Your task to perform on an android device: Show me recent news Image 0: 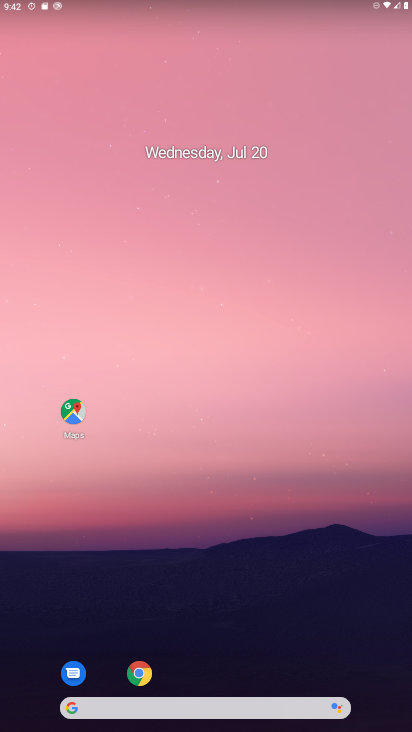
Step 0: drag from (236, 185) to (198, 51)
Your task to perform on an android device: Show me recent news Image 1: 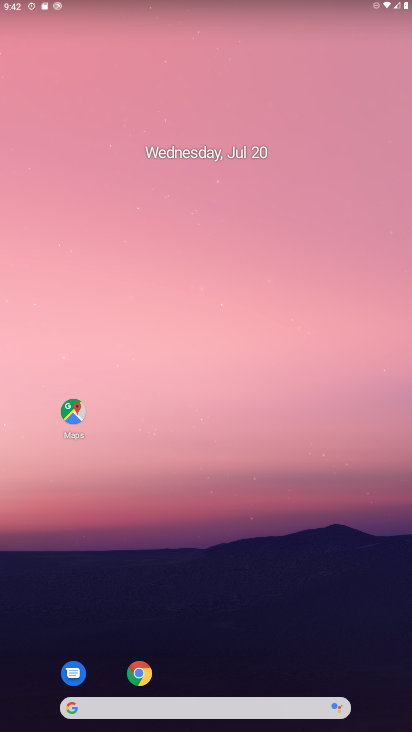
Step 1: drag from (347, 667) to (200, 21)
Your task to perform on an android device: Show me recent news Image 2: 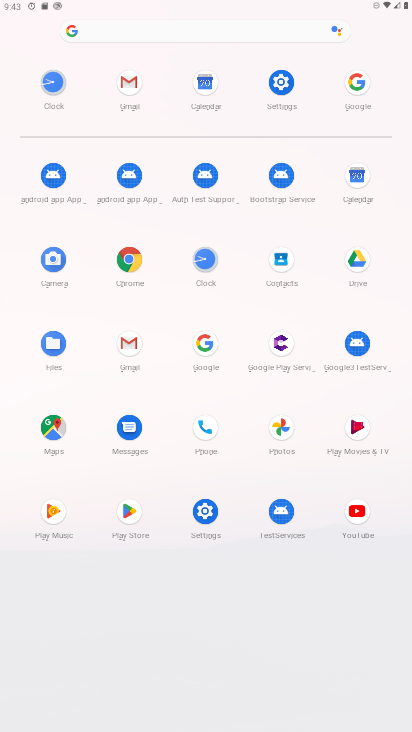
Step 2: click (198, 344)
Your task to perform on an android device: Show me recent news Image 3: 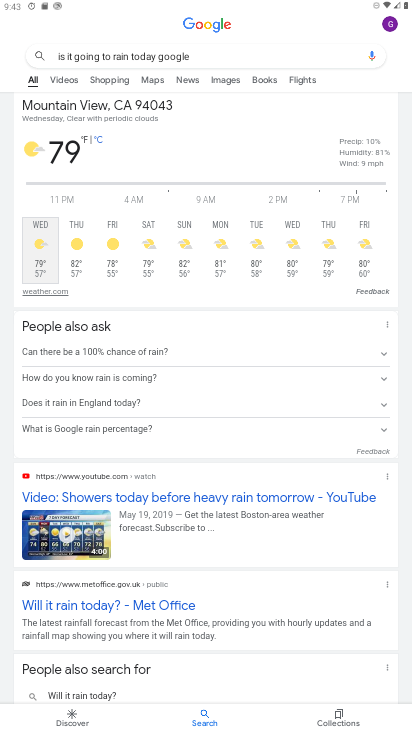
Step 3: press back button
Your task to perform on an android device: Show me recent news Image 4: 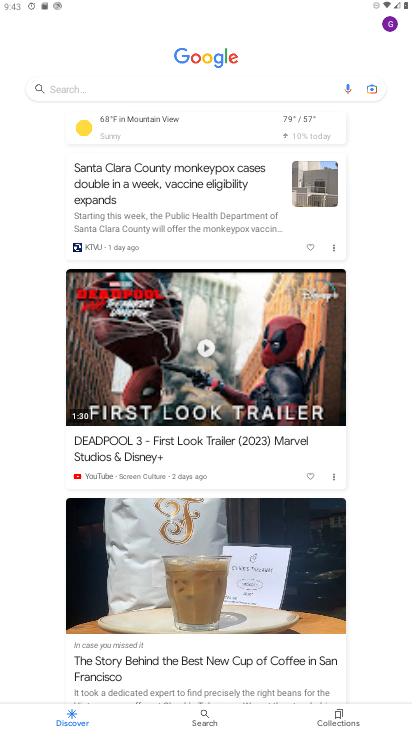
Step 4: click (112, 85)
Your task to perform on an android device: Show me recent news Image 5: 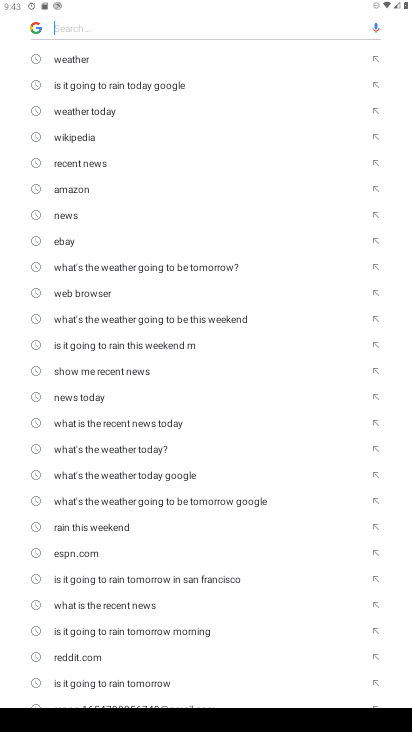
Step 5: click (67, 220)
Your task to perform on an android device: Show me recent news Image 6: 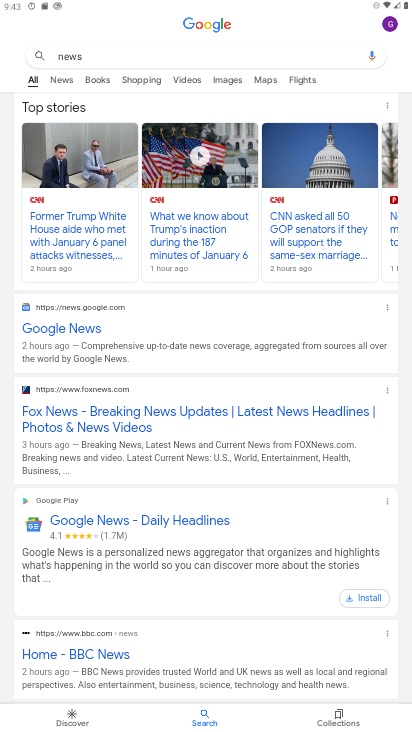
Step 6: task complete